Your task to perform on an android device: Open Yahoo.com Image 0: 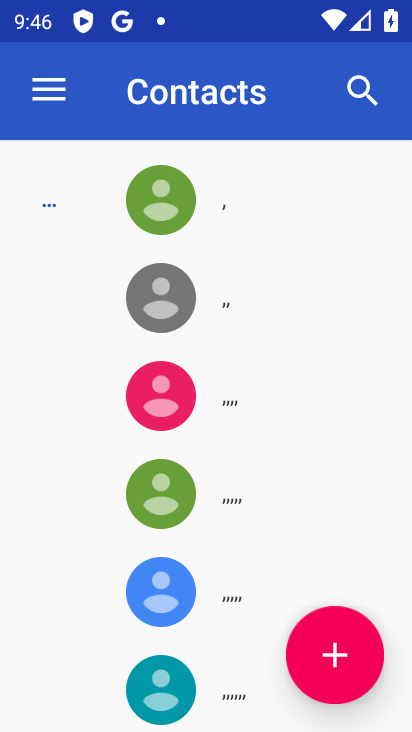
Step 0: press home button
Your task to perform on an android device: Open Yahoo.com Image 1: 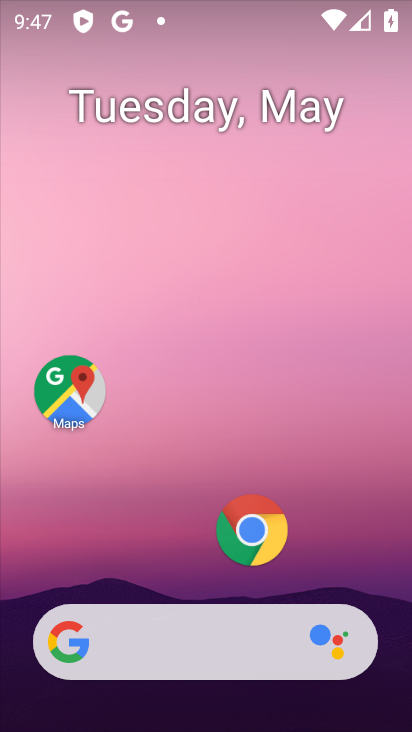
Step 1: click (252, 532)
Your task to perform on an android device: Open Yahoo.com Image 2: 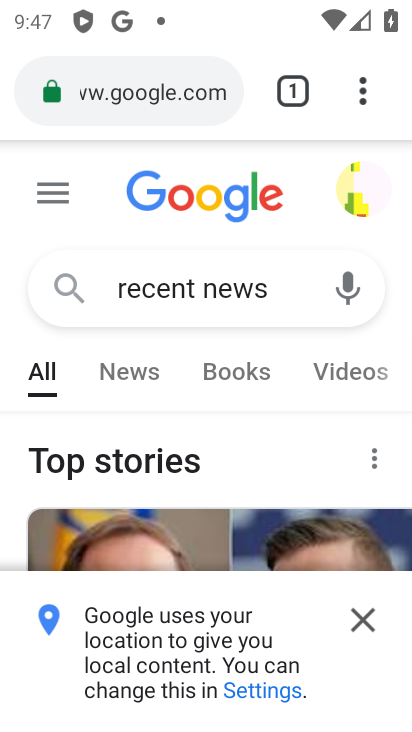
Step 2: click (128, 94)
Your task to perform on an android device: Open Yahoo.com Image 3: 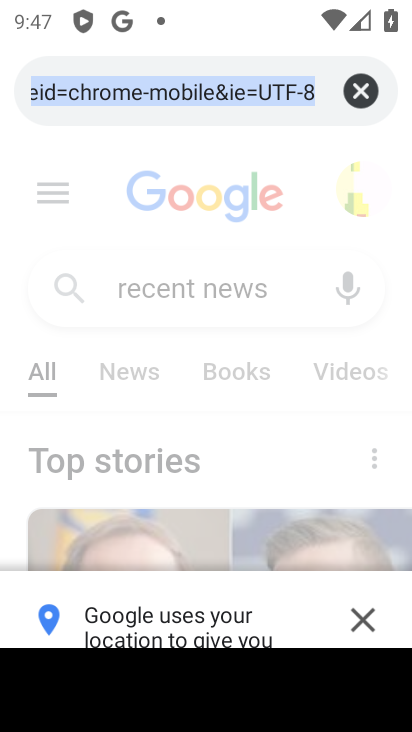
Step 3: type "Yahoo.com"
Your task to perform on an android device: Open Yahoo.com Image 4: 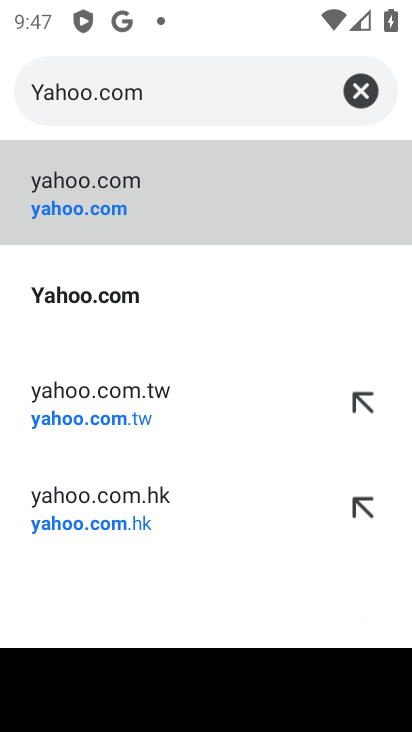
Step 4: click (151, 197)
Your task to perform on an android device: Open Yahoo.com Image 5: 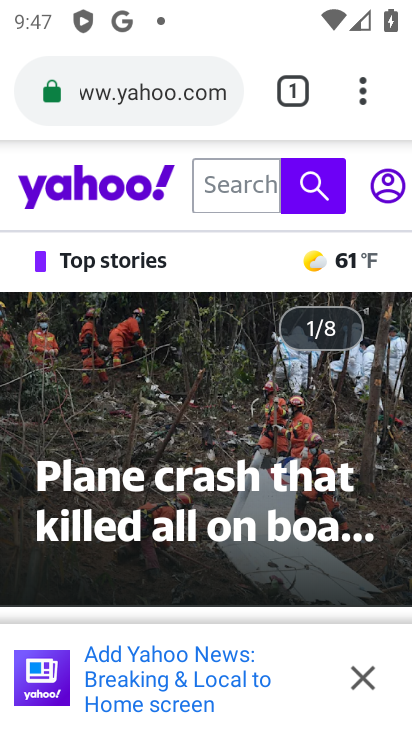
Step 5: task complete